Your task to perform on an android device: turn on notifications settings in the gmail app Image 0: 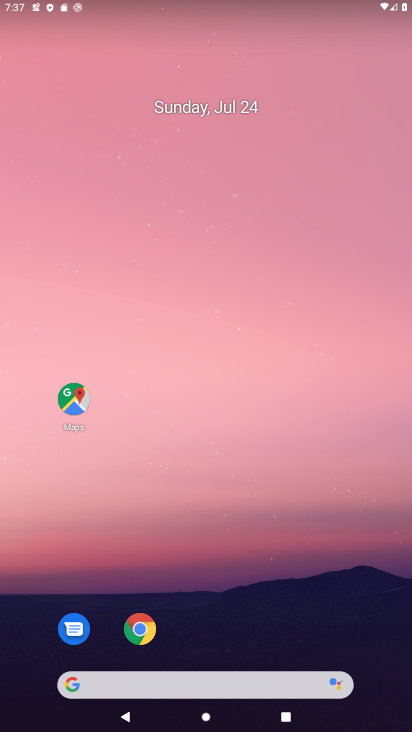
Step 0: press home button
Your task to perform on an android device: turn on notifications settings in the gmail app Image 1: 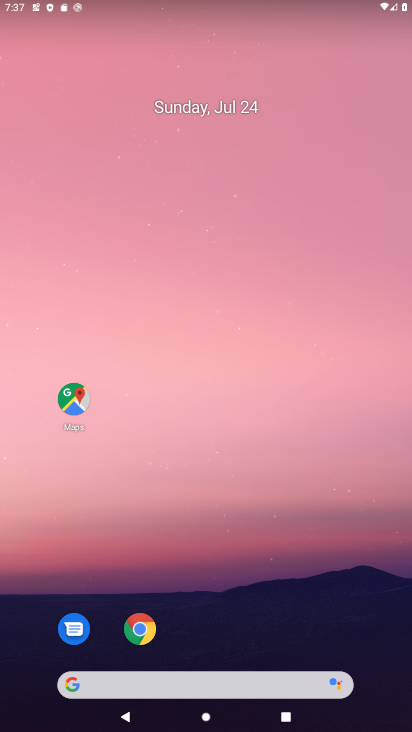
Step 1: drag from (362, 598) to (377, 29)
Your task to perform on an android device: turn on notifications settings in the gmail app Image 2: 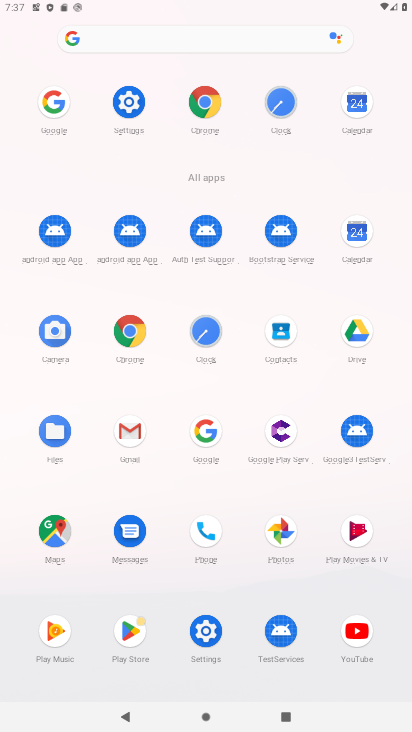
Step 2: click (121, 438)
Your task to perform on an android device: turn on notifications settings in the gmail app Image 3: 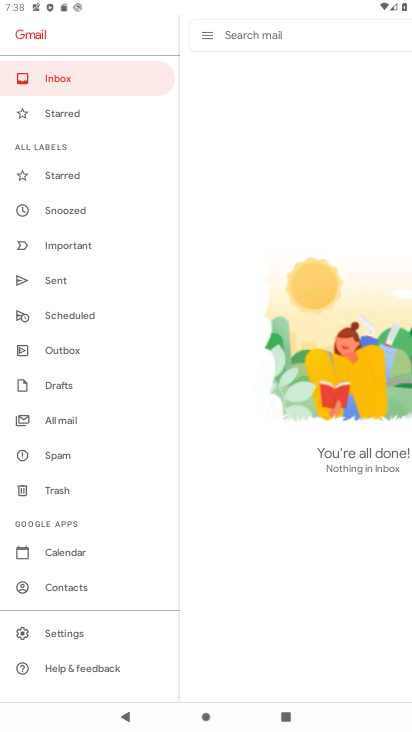
Step 3: click (85, 639)
Your task to perform on an android device: turn on notifications settings in the gmail app Image 4: 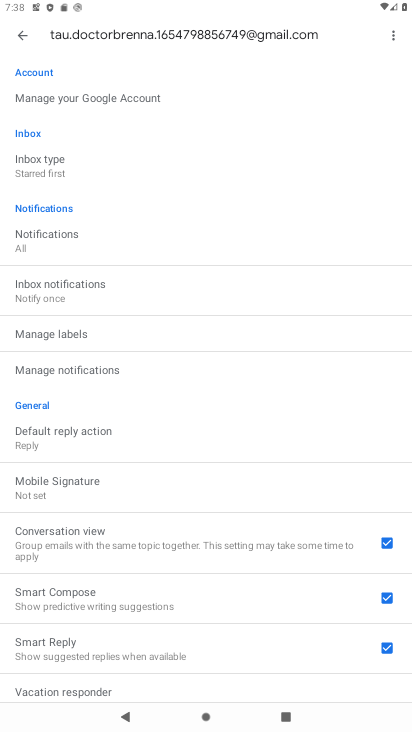
Step 4: drag from (309, 506) to (343, 392)
Your task to perform on an android device: turn on notifications settings in the gmail app Image 5: 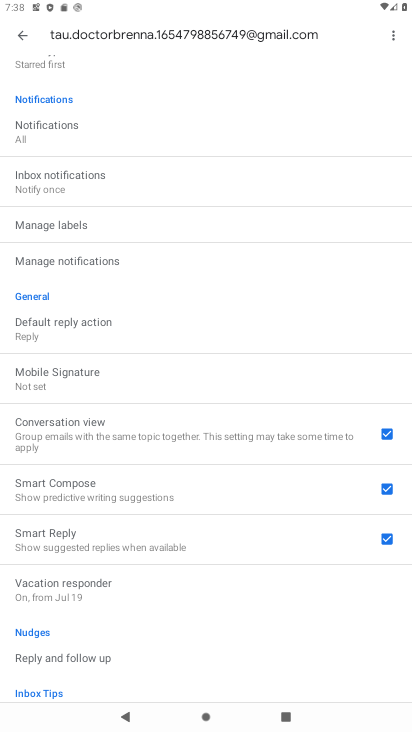
Step 5: drag from (309, 561) to (311, 336)
Your task to perform on an android device: turn on notifications settings in the gmail app Image 6: 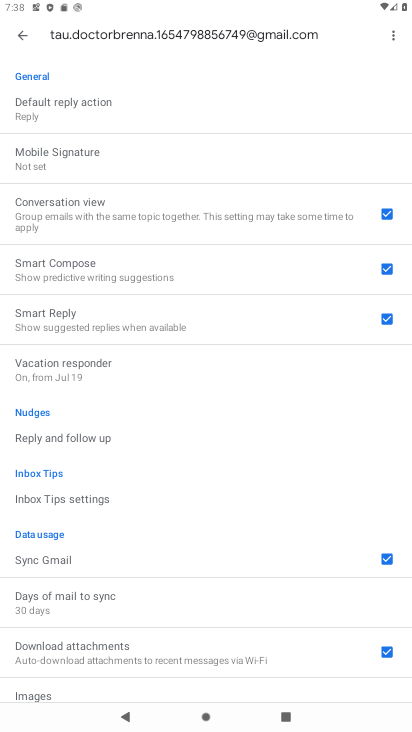
Step 6: drag from (285, 545) to (298, 261)
Your task to perform on an android device: turn on notifications settings in the gmail app Image 7: 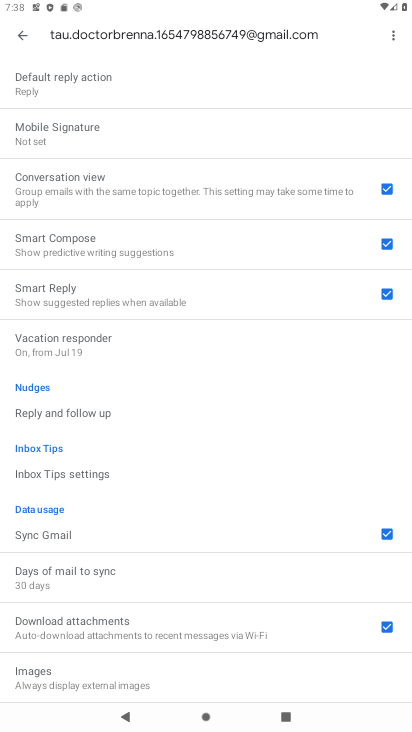
Step 7: drag from (282, 536) to (287, 302)
Your task to perform on an android device: turn on notifications settings in the gmail app Image 8: 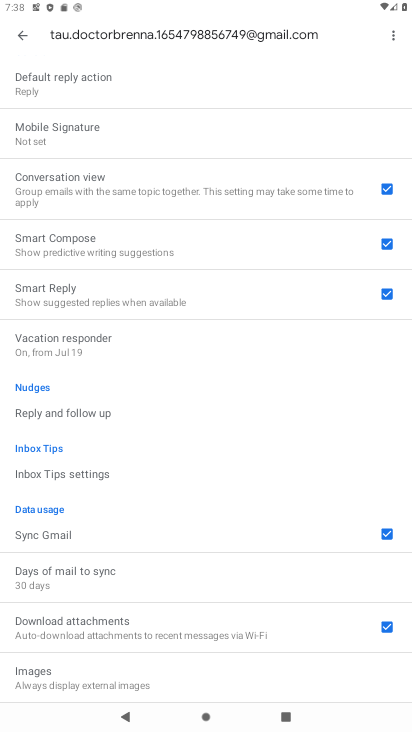
Step 8: drag from (292, 227) to (302, 376)
Your task to perform on an android device: turn on notifications settings in the gmail app Image 9: 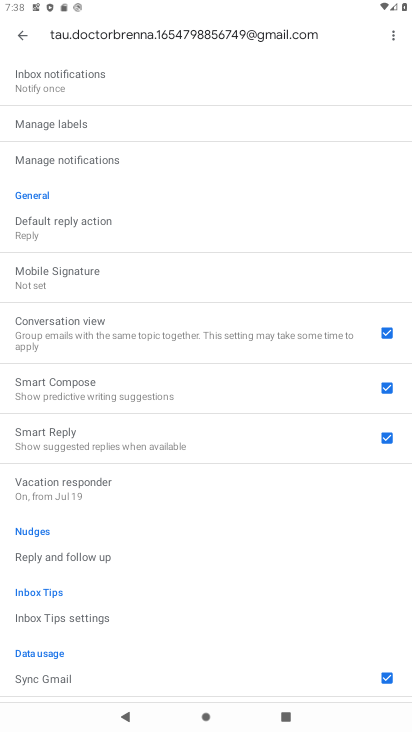
Step 9: drag from (313, 194) to (313, 381)
Your task to perform on an android device: turn on notifications settings in the gmail app Image 10: 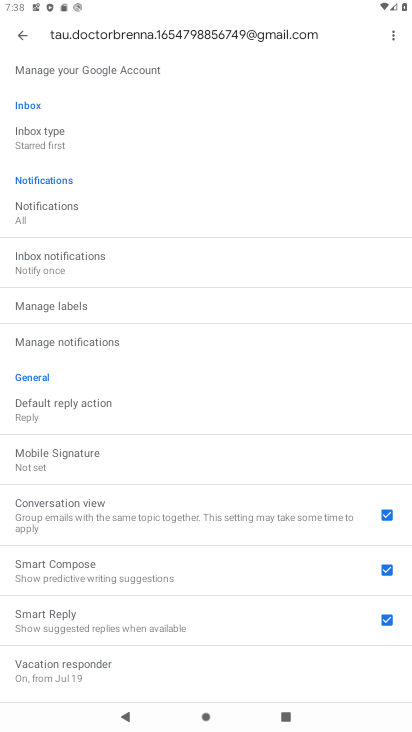
Step 10: drag from (314, 164) to (317, 336)
Your task to perform on an android device: turn on notifications settings in the gmail app Image 11: 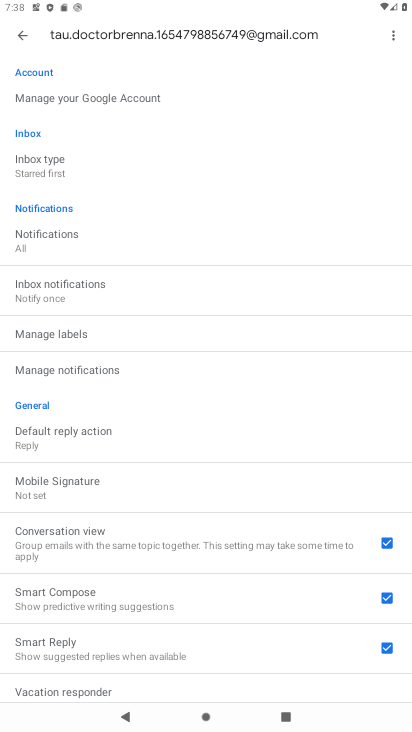
Step 11: drag from (288, 422) to (293, 373)
Your task to perform on an android device: turn on notifications settings in the gmail app Image 12: 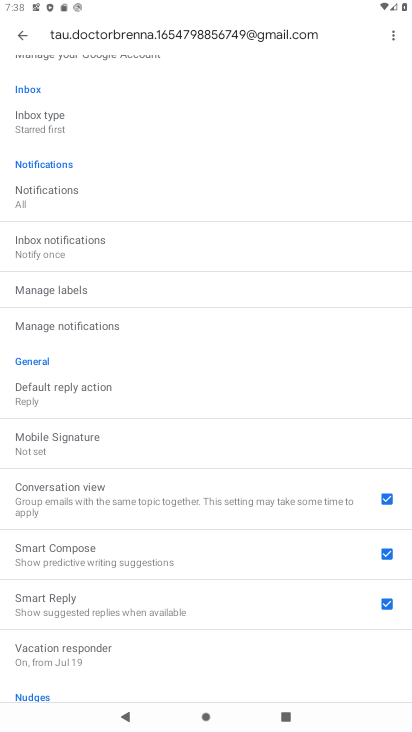
Step 12: drag from (293, 520) to (305, 418)
Your task to perform on an android device: turn on notifications settings in the gmail app Image 13: 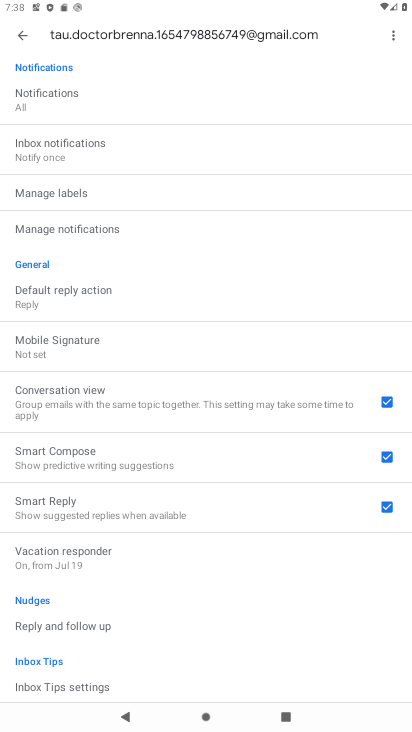
Step 13: drag from (305, 545) to (297, 443)
Your task to perform on an android device: turn on notifications settings in the gmail app Image 14: 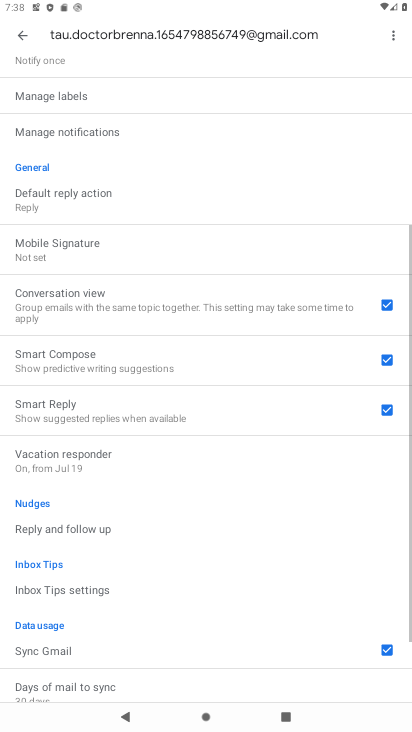
Step 14: drag from (294, 515) to (294, 461)
Your task to perform on an android device: turn on notifications settings in the gmail app Image 15: 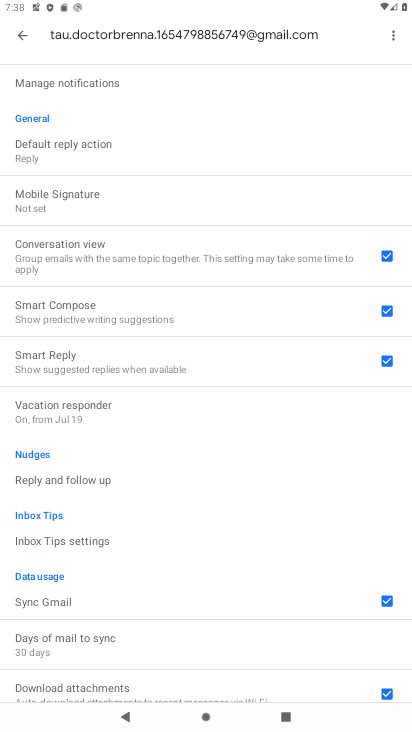
Step 15: drag from (285, 531) to (288, 439)
Your task to perform on an android device: turn on notifications settings in the gmail app Image 16: 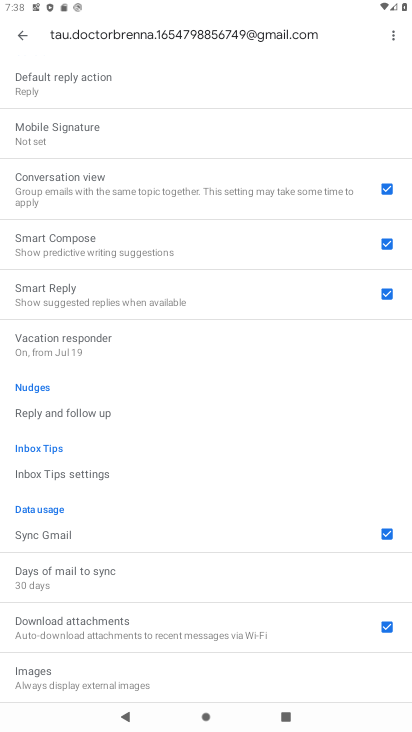
Step 16: drag from (276, 546) to (274, 447)
Your task to perform on an android device: turn on notifications settings in the gmail app Image 17: 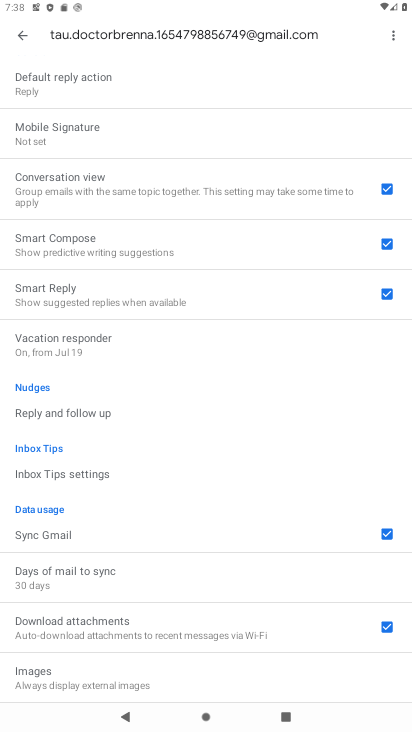
Step 17: drag from (290, 274) to (301, 459)
Your task to perform on an android device: turn on notifications settings in the gmail app Image 18: 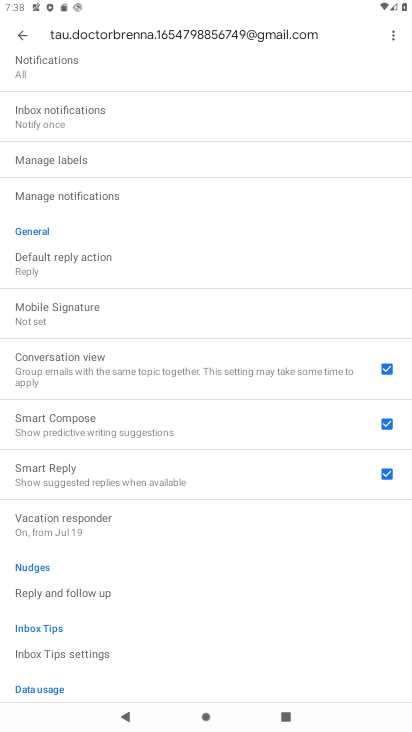
Step 18: drag from (307, 205) to (292, 355)
Your task to perform on an android device: turn on notifications settings in the gmail app Image 19: 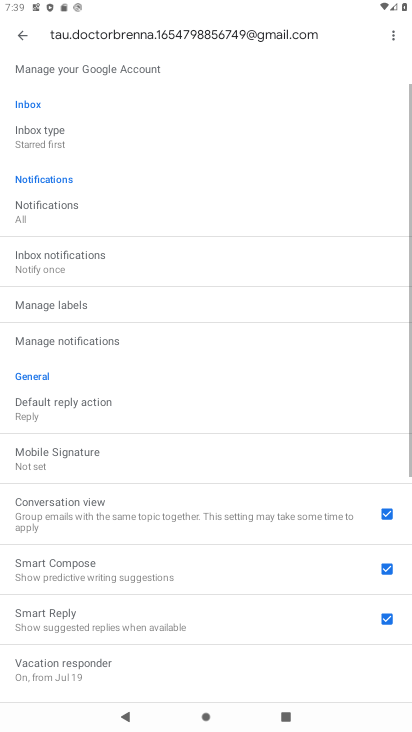
Step 19: drag from (229, 162) to (230, 342)
Your task to perform on an android device: turn on notifications settings in the gmail app Image 20: 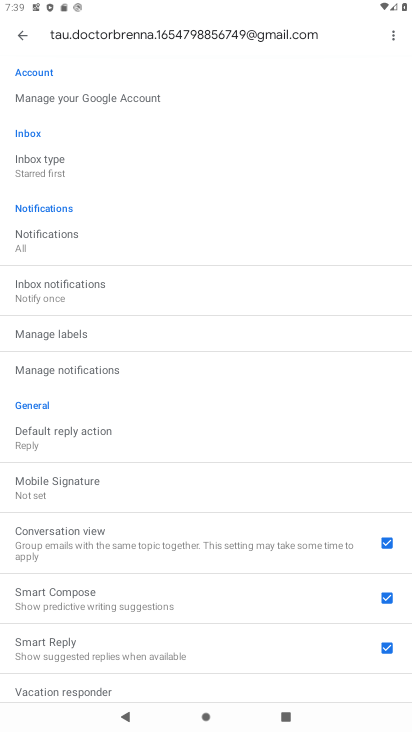
Step 20: click (221, 373)
Your task to perform on an android device: turn on notifications settings in the gmail app Image 21: 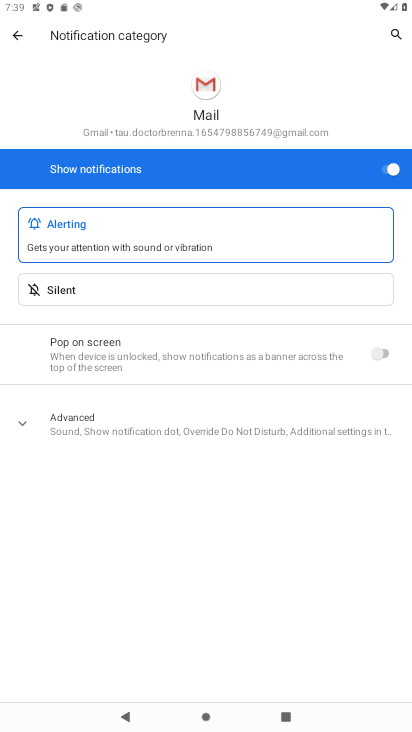
Step 21: task complete